Your task to perform on an android device: Search for seafood restaurants on Google Maps Image 0: 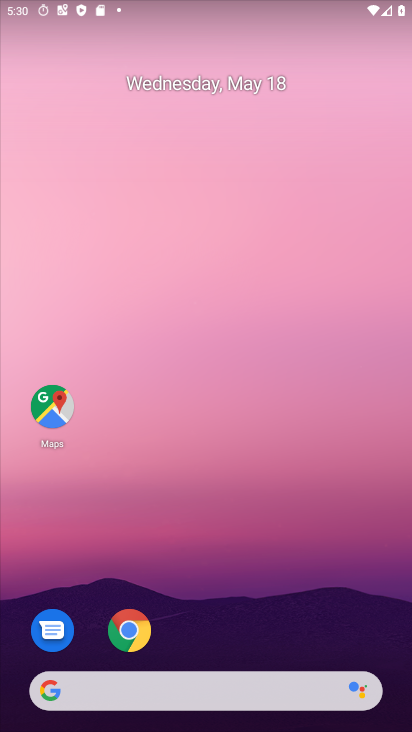
Step 0: click (52, 421)
Your task to perform on an android device: Search for seafood restaurants on Google Maps Image 1: 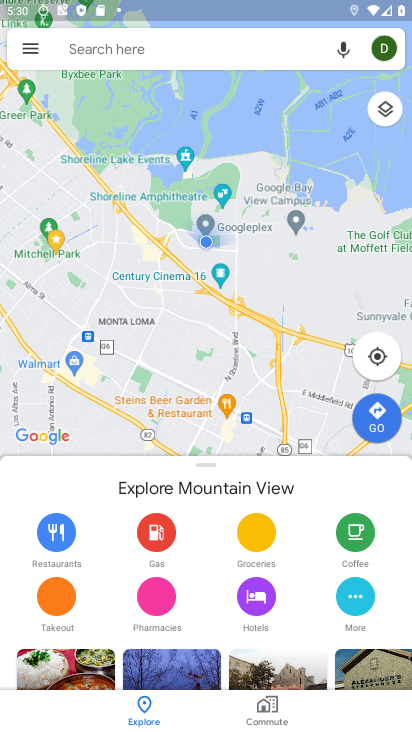
Step 1: click (120, 49)
Your task to perform on an android device: Search for seafood restaurants on Google Maps Image 2: 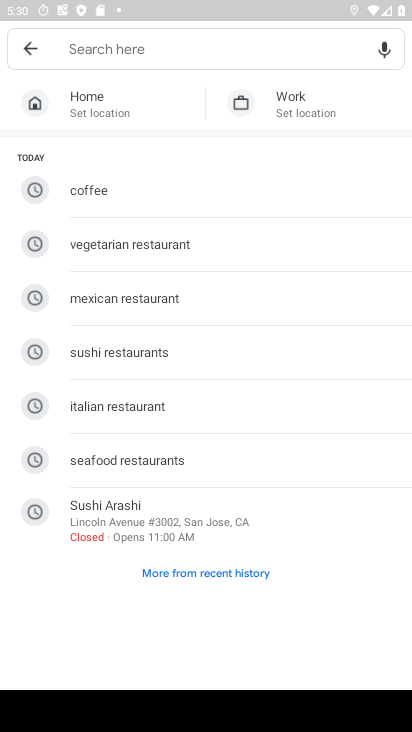
Step 2: click (96, 459)
Your task to perform on an android device: Search for seafood restaurants on Google Maps Image 3: 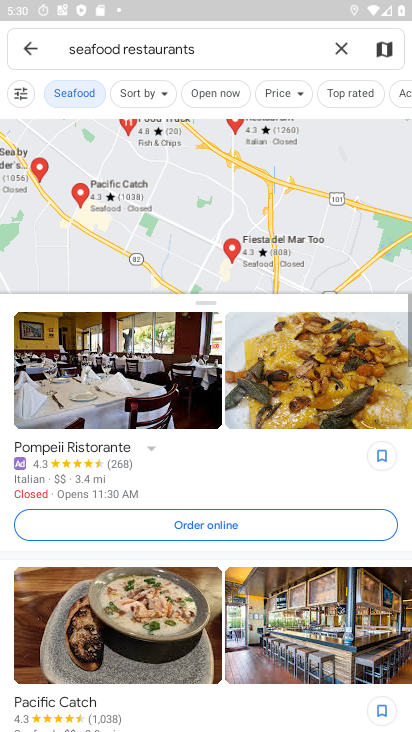
Step 3: task complete